Your task to perform on an android device: set an alarm Image 0: 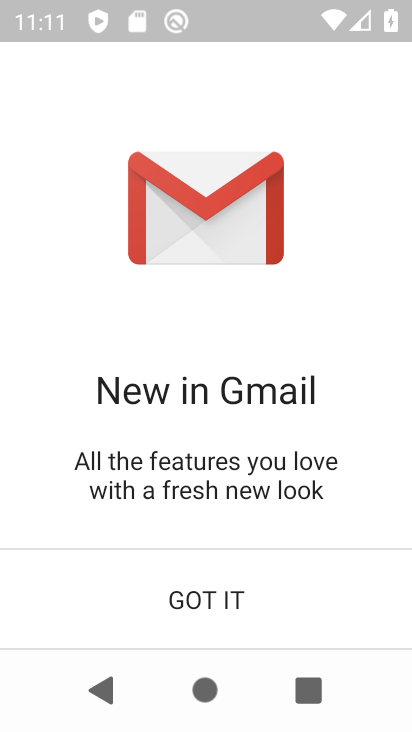
Step 0: press home button
Your task to perform on an android device: set an alarm Image 1: 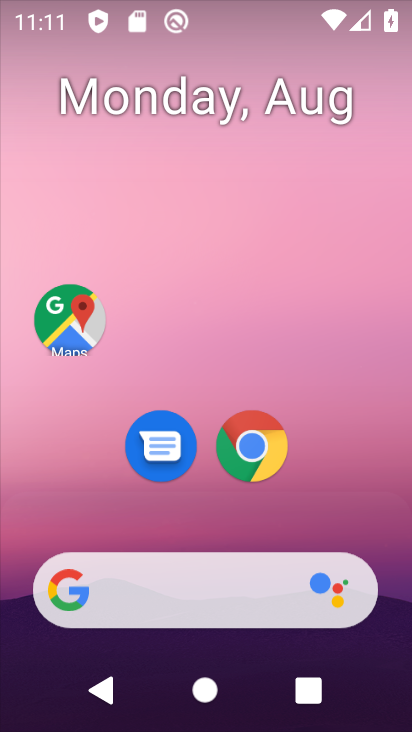
Step 1: drag from (154, 435) to (164, 223)
Your task to perform on an android device: set an alarm Image 2: 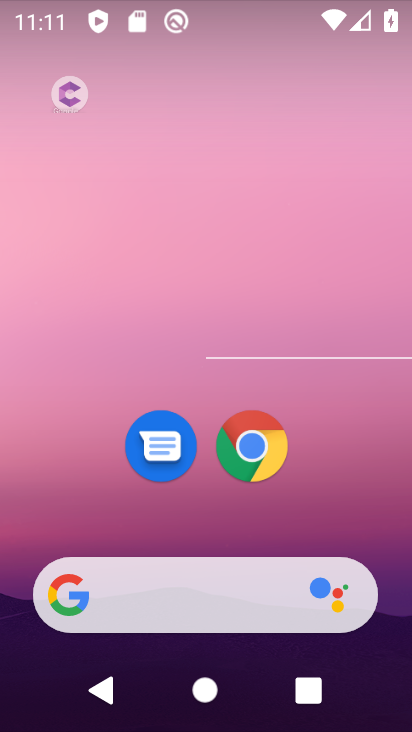
Step 2: drag from (180, 509) to (218, 120)
Your task to perform on an android device: set an alarm Image 3: 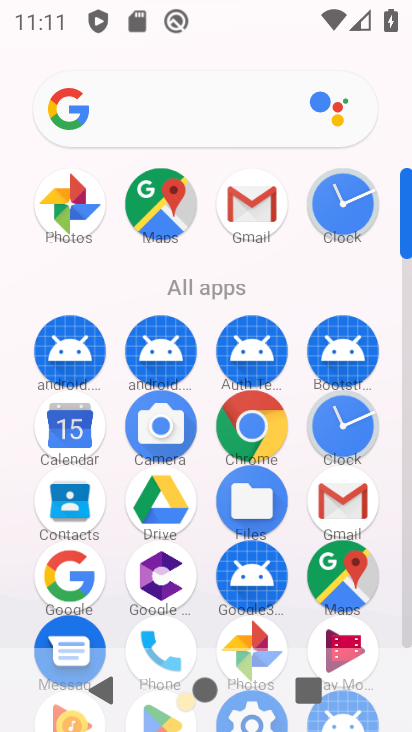
Step 3: click (307, 424)
Your task to perform on an android device: set an alarm Image 4: 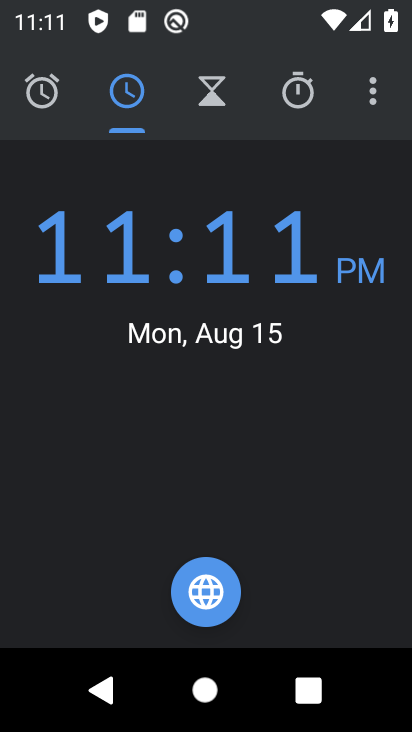
Step 4: click (40, 125)
Your task to perform on an android device: set an alarm Image 5: 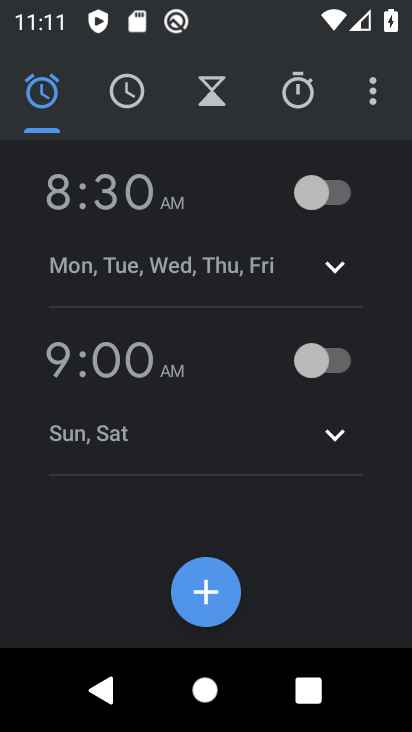
Step 5: click (362, 358)
Your task to perform on an android device: set an alarm Image 6: 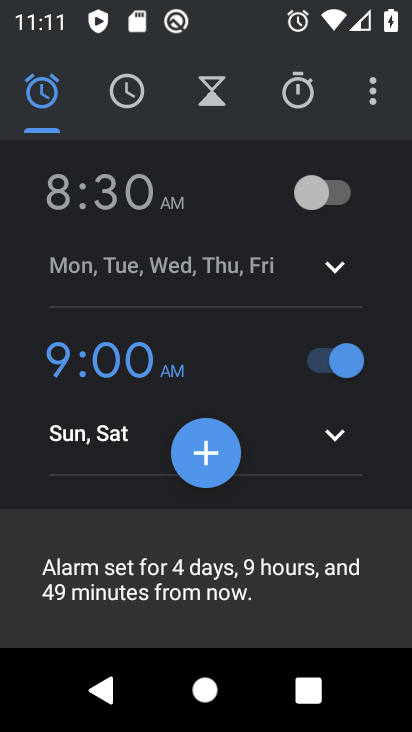
Step 6: click (66, 350)
Your task to perform on an android device: set an alarm Image 7: 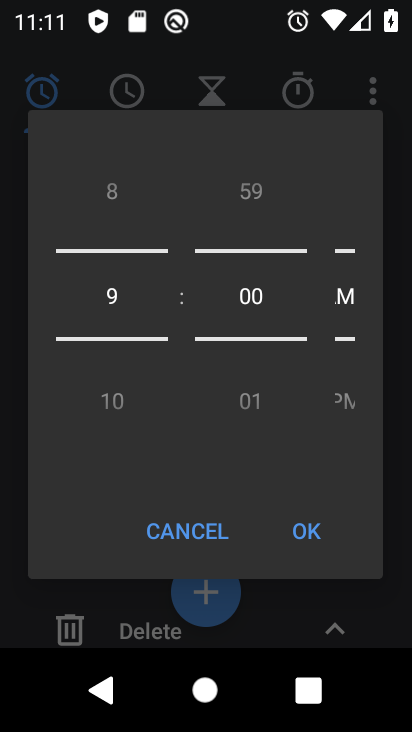
Step 7: click (114, 200)
Your task to perform on an android device: set an alarm Image 8: 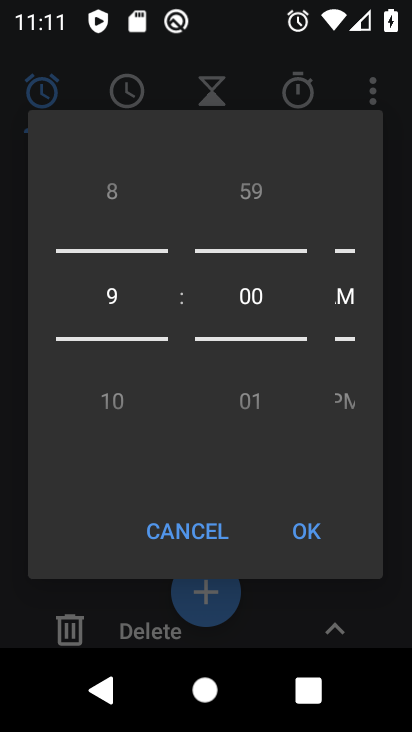
Step 8: drag from (113, 199) to (118, 311)
Your task to perform on an android device: set an alarm Image 9: 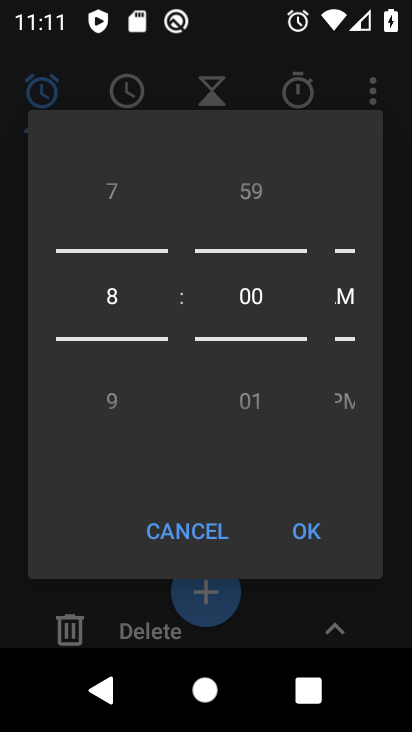
Step 9: drag from (255, 293) to (252, 75)
Your task to perform on an android device: set an alarm Image 10: 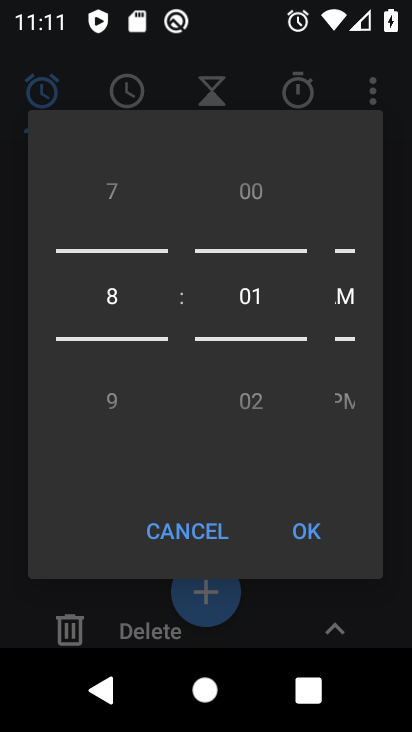
Step 10: click (303, 534)
Your task to perform on an android device: set an alarm Image 11: 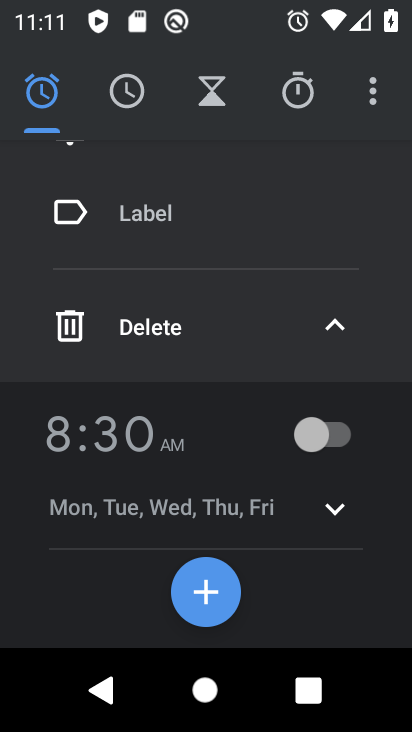
Step 11: task complete